Your task to perform on an android device: Go to Yahoo.com Image 0: 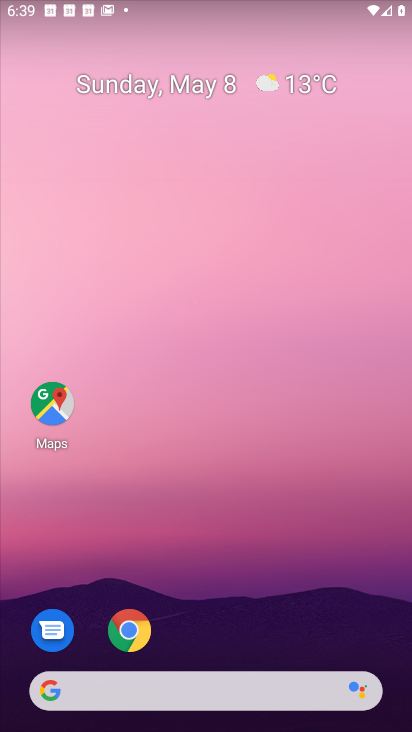
Step 0: drag from (268, 540) to (124, 4)
Your task to perform on an android device: Go to Yahoo.com Image 1: 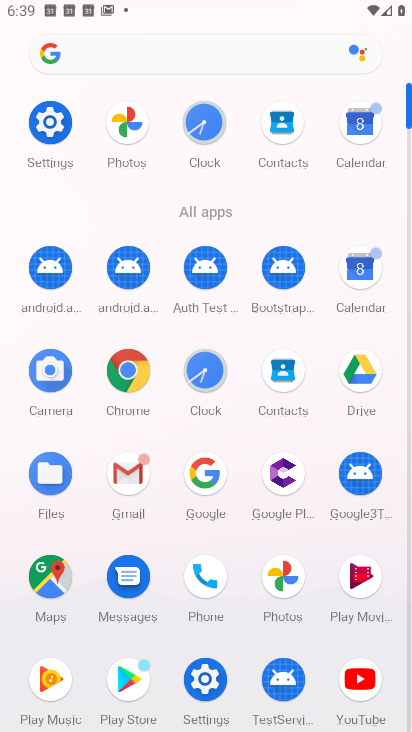
Step 1: click (129, 367)
Your task to perform on an android device: Go to Yahoo.com Image 2: 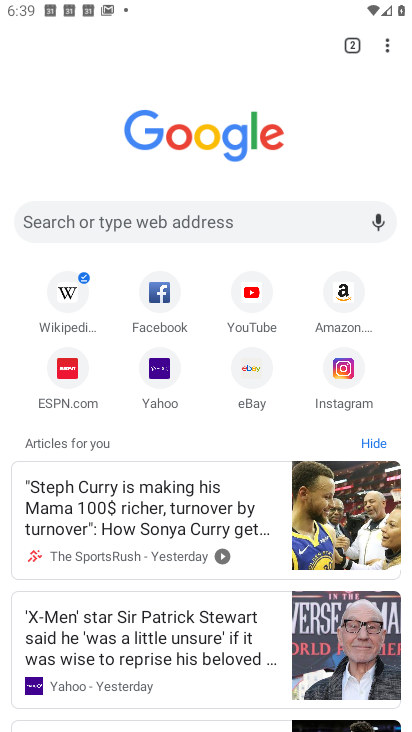
Step 2: click (156, 376)
Your task to perform on an android device: Go to Yahoo.com Image 3: 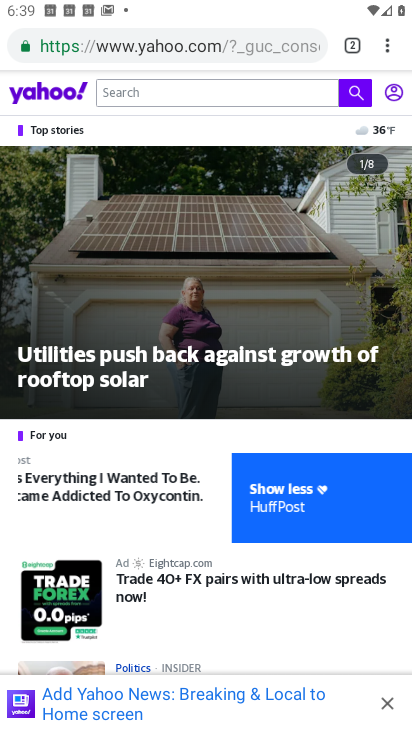
Step 3: task complete